Your task to perform on an android device: Go to Wikipedia Image 0: 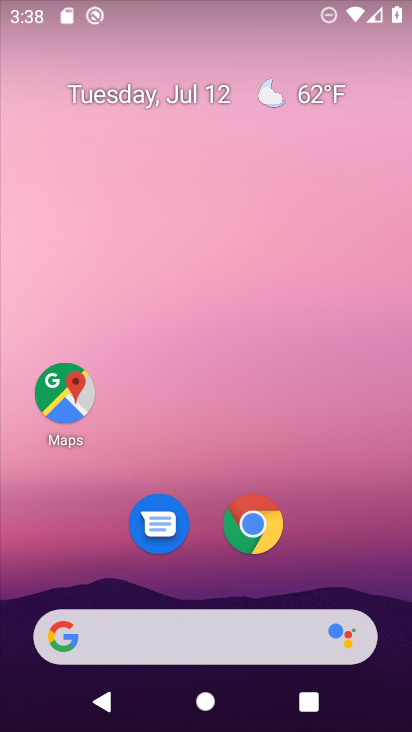
Step 0: click (263, 522)
Your task to perform on an android device: Go to Wikipedia Image 1: 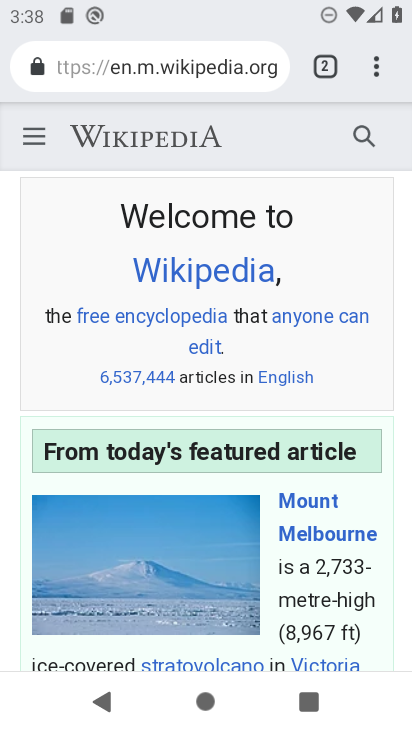
Step 1: task complete